Your task to perform on an android device: star an email in the gmail app Image 0: 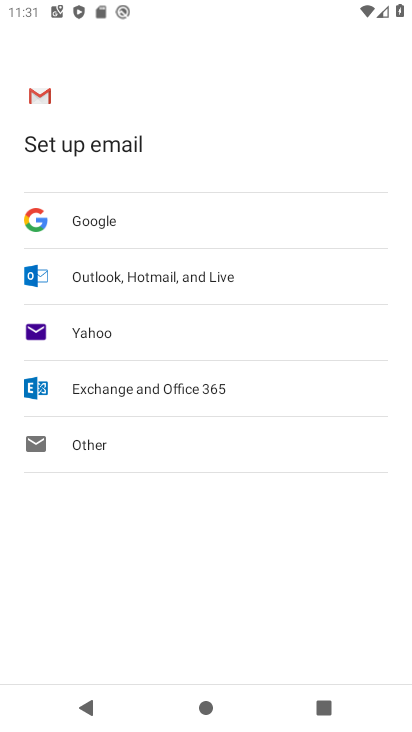
Step 0: press home button
Your task to perform on an android device: star an email in the gmail app Image 1: 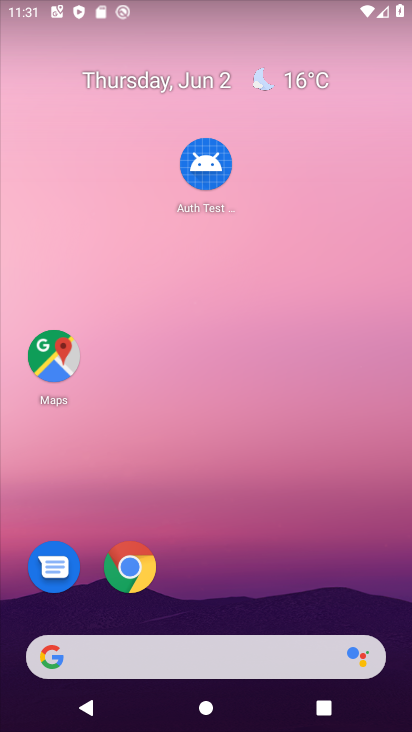
Step 1: drag from (220, 587) to (216, 143)
Your task to perform on an android device: star an email in the gmail app Image 2: 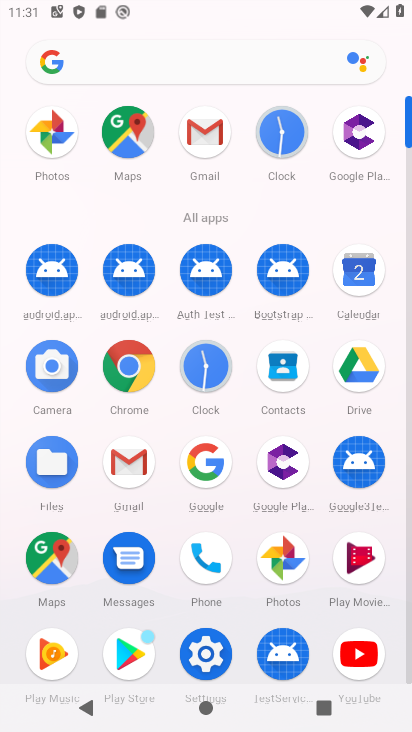
Step 2: drag from (273, 470) to (249, 121)
Your task to perform on an android device: star an email in the gmail app Image 3: 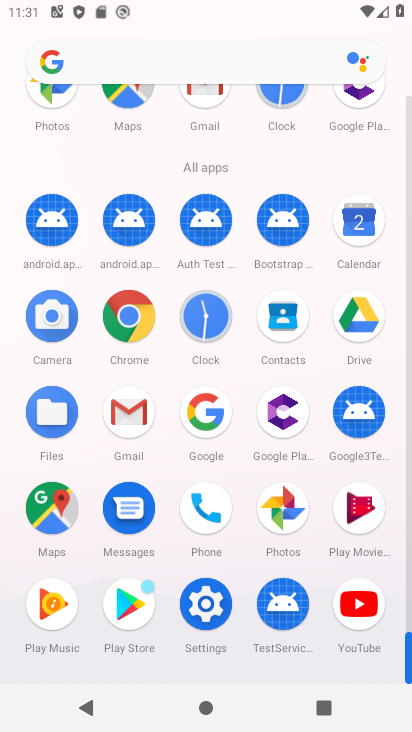
Step 3: click (181, 138)
Your task to perform on an android device: star an email in the gmail app Image 4: 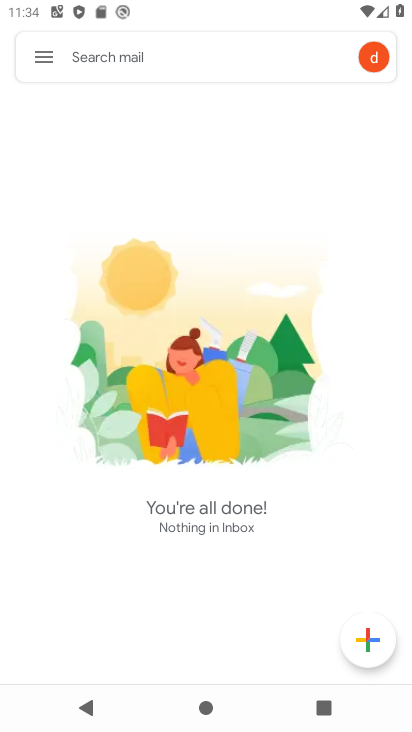
Step 4: task complete